Your task to perform on an android device: show emergency info Image 0: 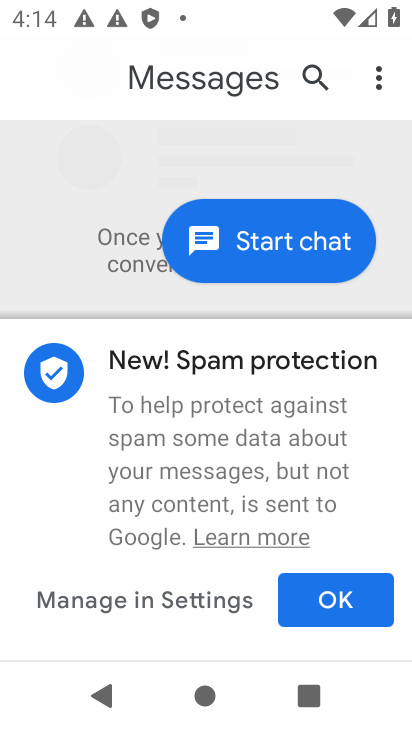
Step 0: press home button
Your task to perform on an android device: show emergency info Image 1: 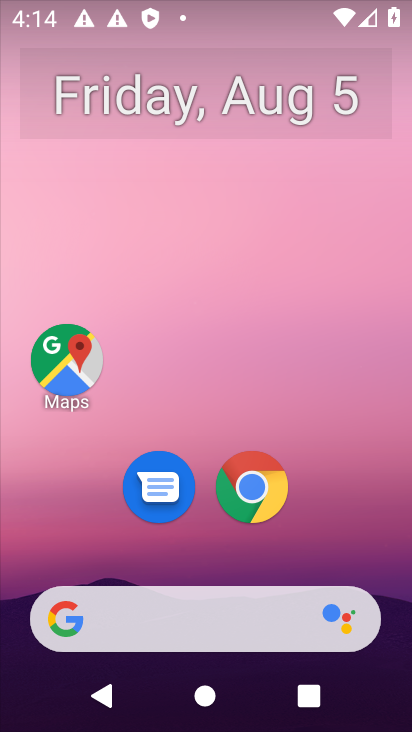
Step 1: drag from (330, 414) to (371, 77)
Your task to perform on an android device: show emergency info Image 2: 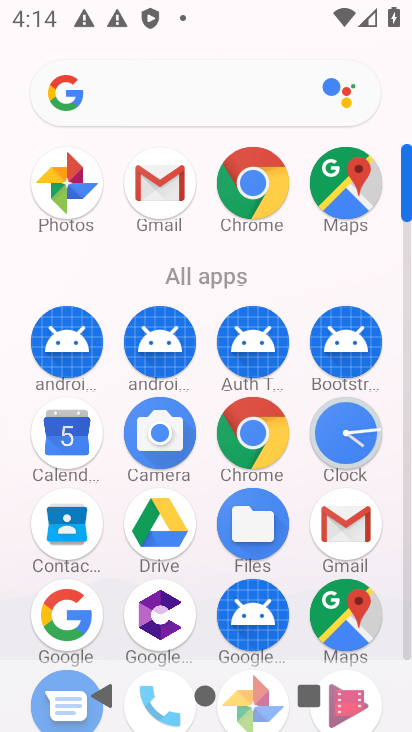
Step 2: drag from (178, 486) to (179, 232)
Your task to perform on an android device: show emergency info Image 3: 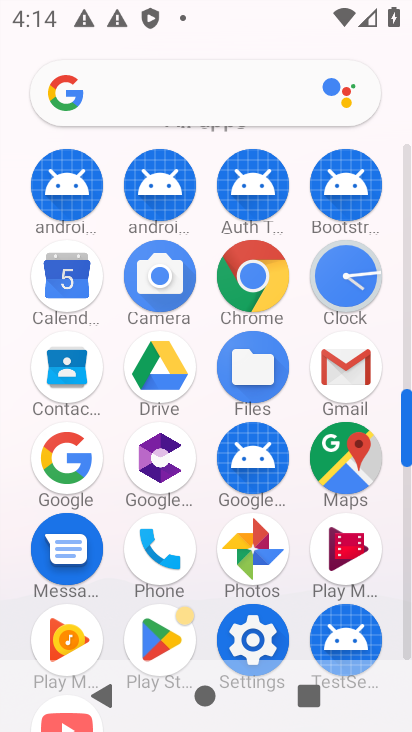
Step 3: click (249, 630)
Your task to perform on an android device: show emergency info Image 4: 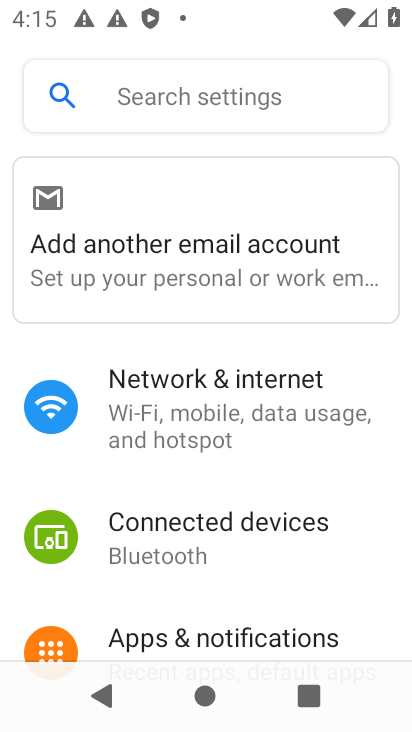
Step 4: task complete